Your task to perform on an android device: Open the web browser Image 0: 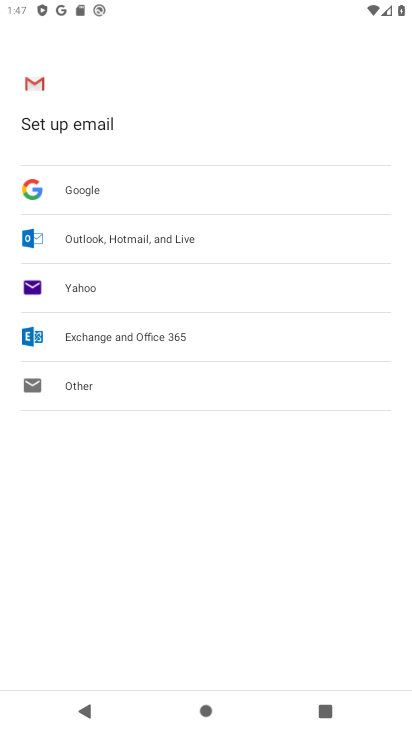
Step 0: press home button
Your task to perform on an android device: Open the web browser Image 1: 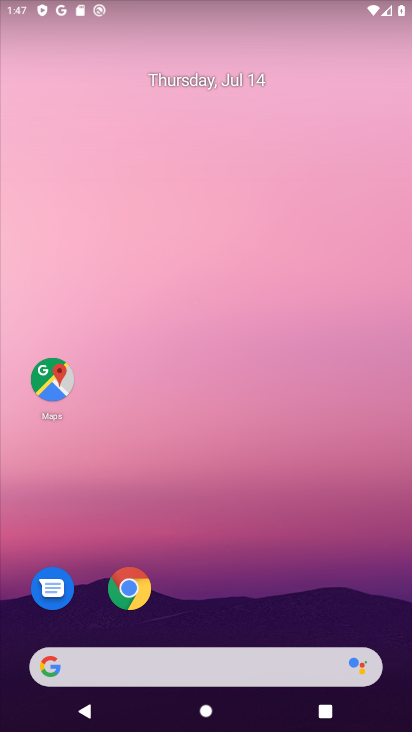
Step 1: click (136, 592)
Your task to perform on an android device: Open the web browser Image 2: 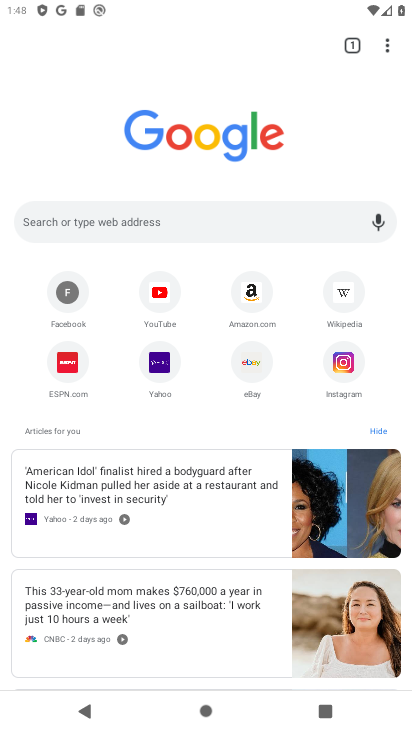
Step 2: task complete